Your task to perform on an android device: Clear all items from cart on costco.com. Add razer huntsman to the cart on costco.com Image 0: 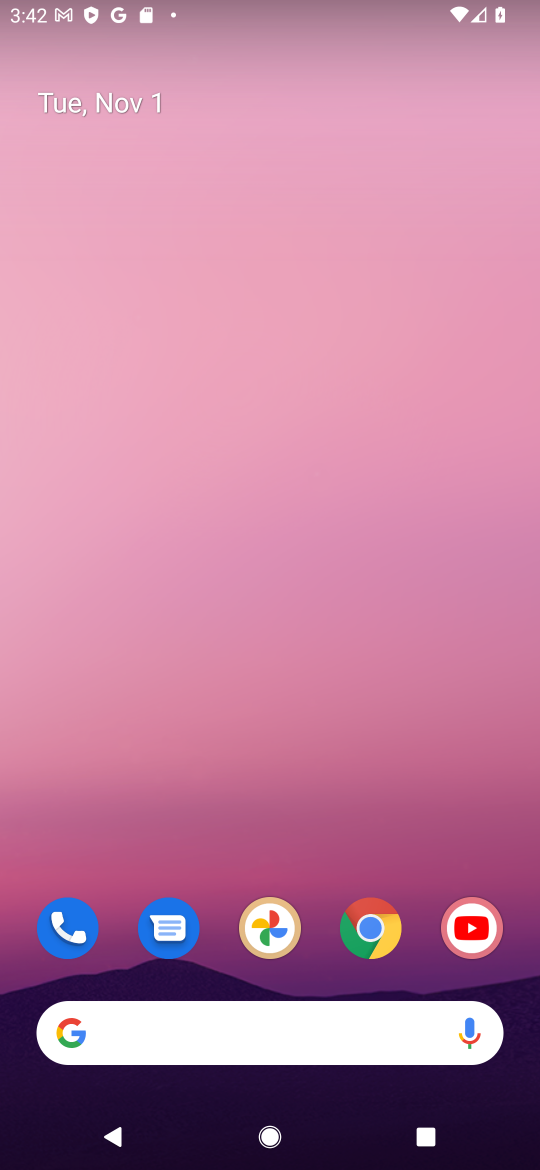
Step 0: click (381, 943)
Your task to perform on an android device: Clear all items from cart on costco.com. Add razer huntsman to the cart on costco.com Image 1: 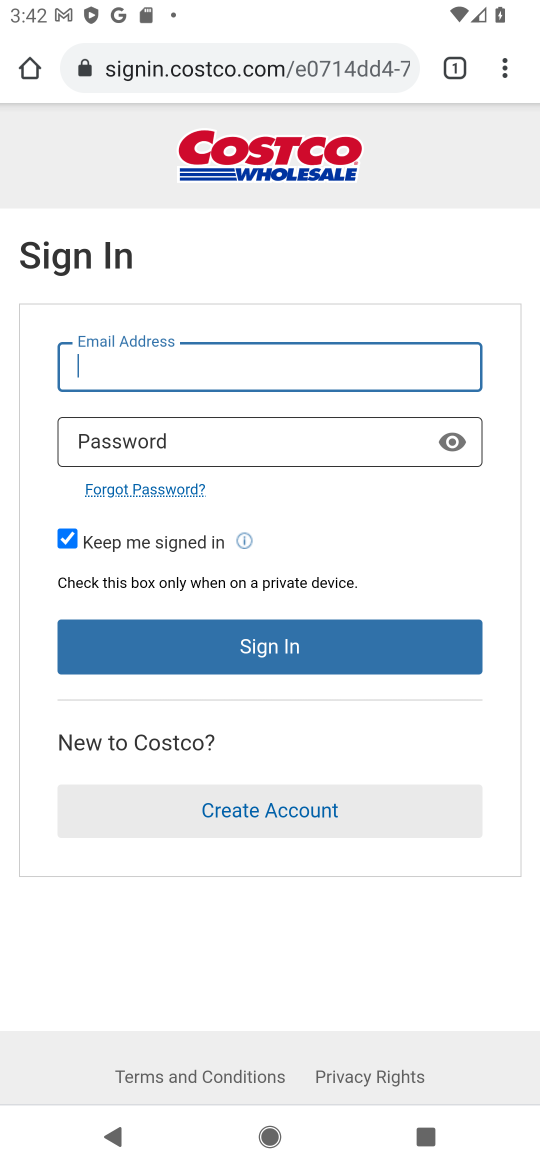
Step 1: click (255, 67)
Your task to perform on an android device: Clear all items from cart on costco.com. Add razer huntsman to the cart on costco.com Image 2: 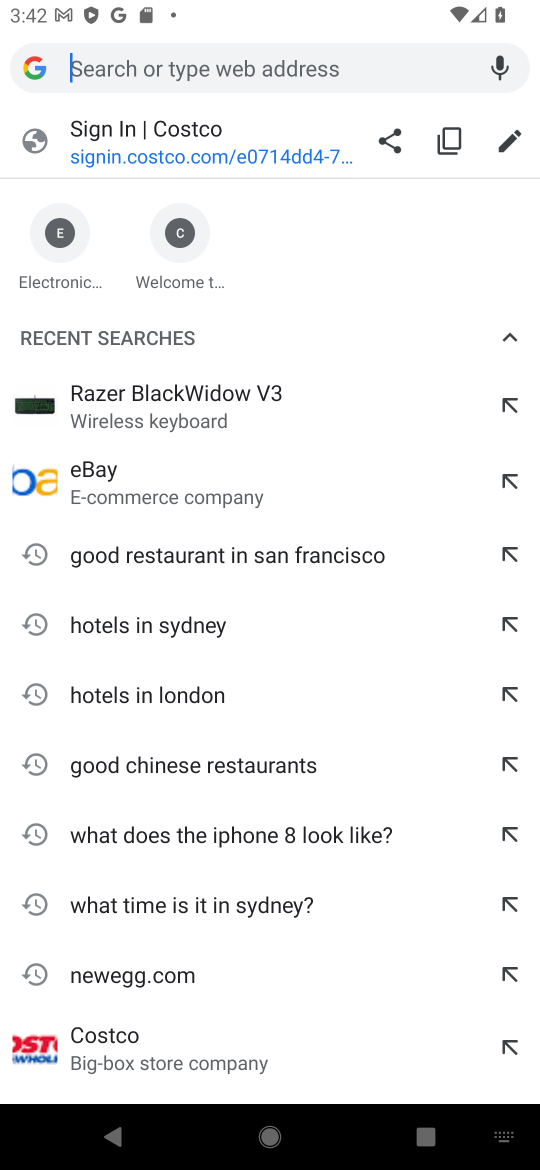
Step 2: type "costco.com"
Your task to perform on an android device: Clear all items from cart on costco.com. Add razer huntsman to the cart on costco.com Image 3: 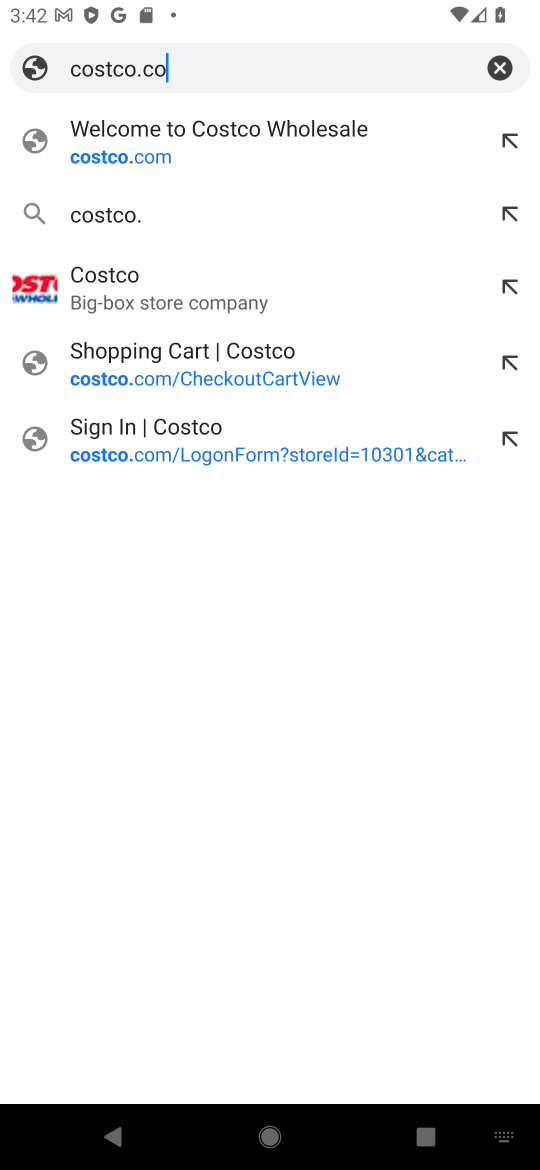
Step 3: type ""
Your task to perform on an android device: Clear all items from cart on costco.com. Add razer huntsman to the cart on costco.com Image 4: 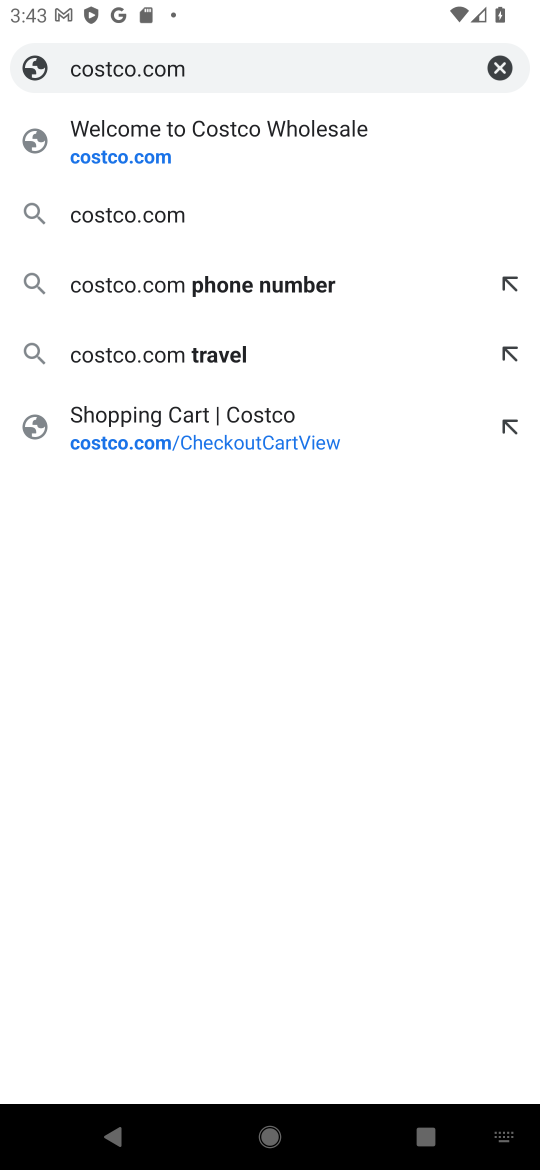
Step 4: press enter
Your task to perform on an android device: Clear all items from cart on costco.com. Add razer huntsman to the cart on costco.com Image 5: 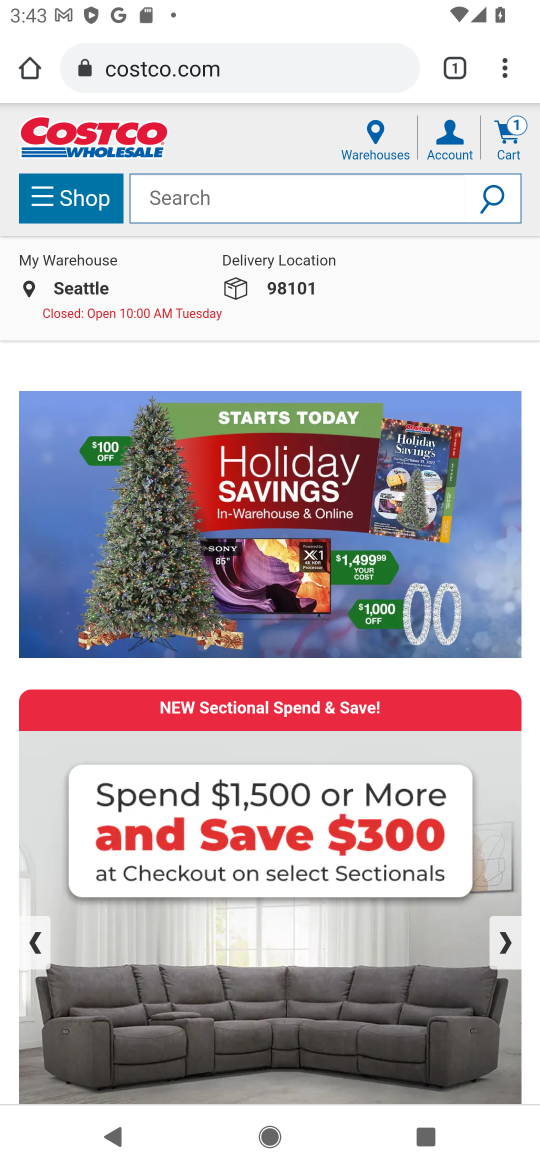
Step 5: click (499, 141)
Your task to perform on an android device: Clear all items from cart on costco.com. Add razer huntsman to the cart on costco.com Image 6: 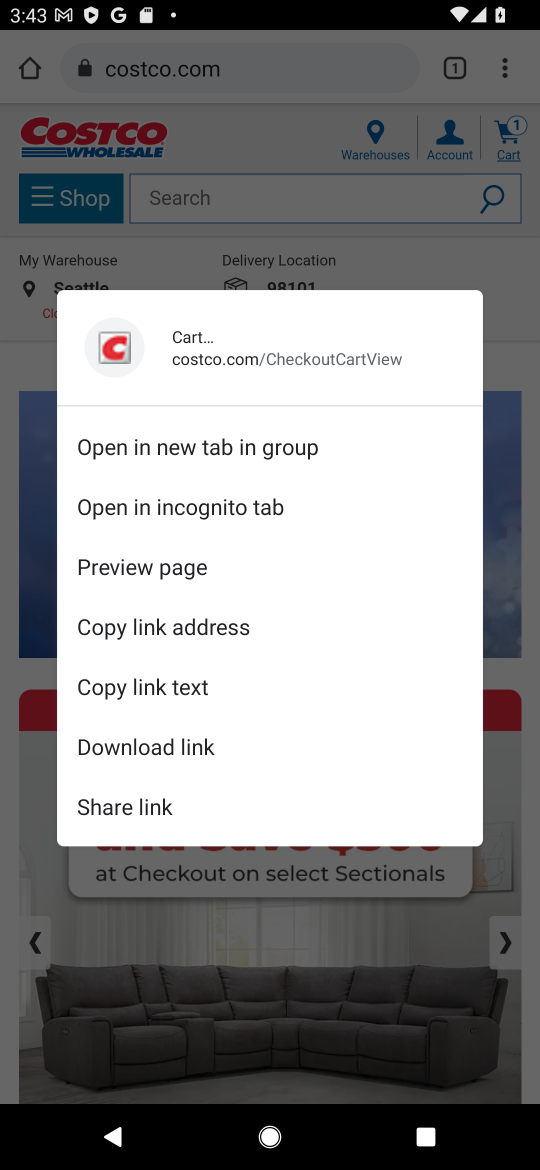
Step 6: click (512, 527)
Your task to perform on an android device: Clear all items from cart on costco.com. Add razer huntsman to the cart on costco.com Image 7: 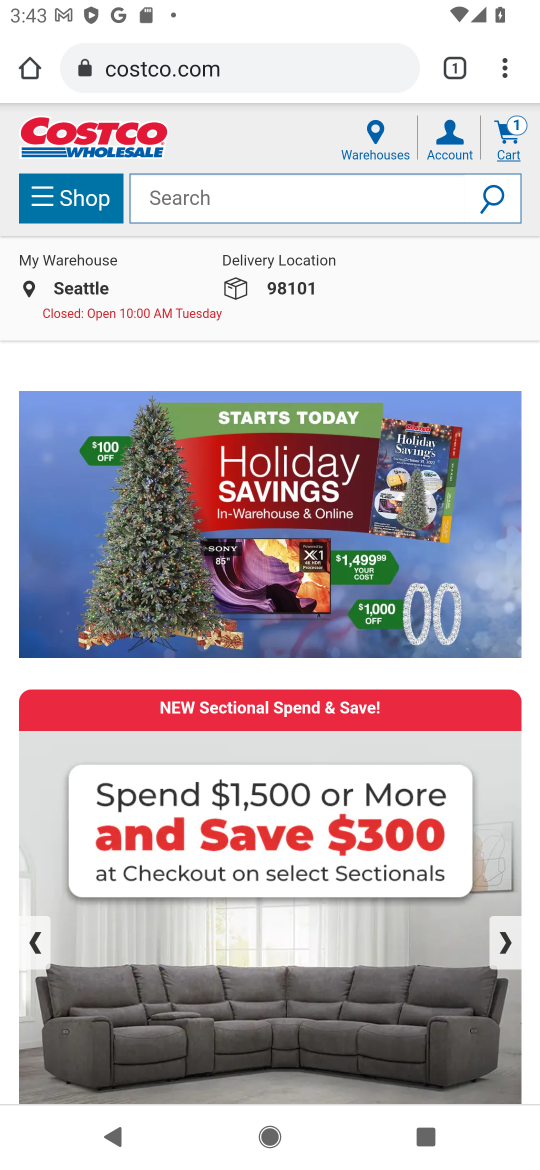
Step 7: click (506, 131)
Your task to perform on an android device: Clear all items from cart on costco.com. Add razer huntsman to the cart on costco.com Image 8: 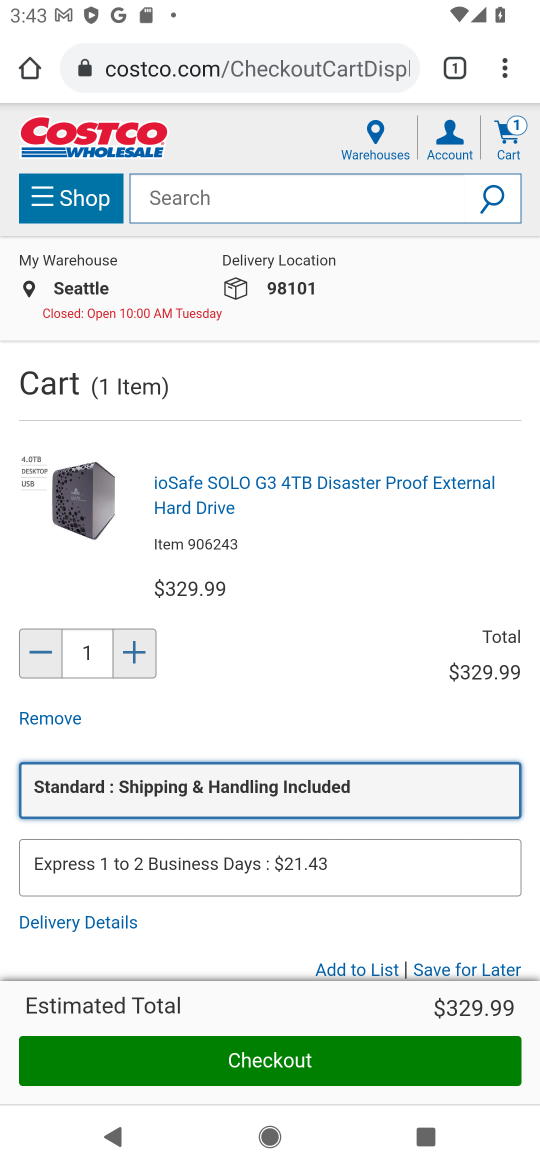
Step 8: click (61, 712)
Your task to perform on an android device: Clear all items from cart on costco.com. Add razer huntsman to the cart on costco.com Image 9: 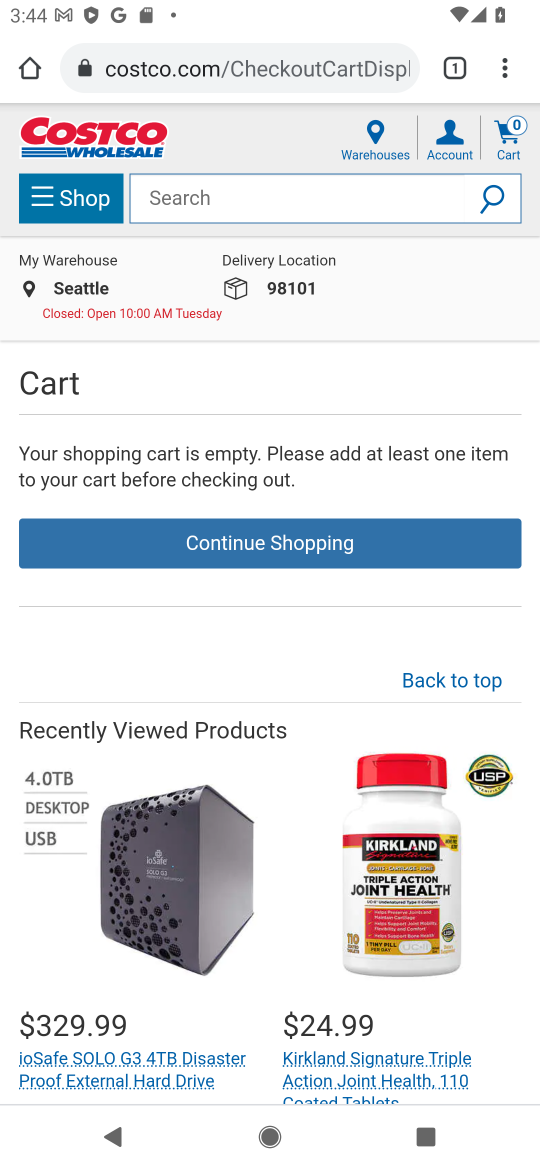
Step 9: click (310, 190)
Your task to perform on an android device: Clear all items from cart on costco.com. Add razer huntsman to the cart on costco.com Image 10: 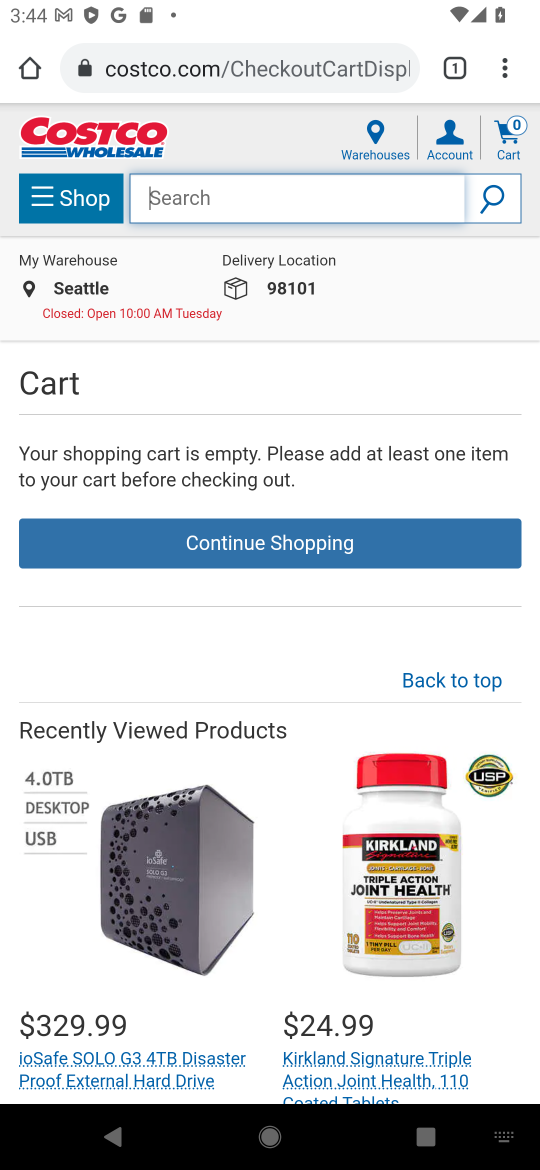
Step 10: type "razer huntsman"
Your task to perform on an android device: Clear all items from cart on costco.com. Add razer huntsman to the cart on costco.com Image 11: 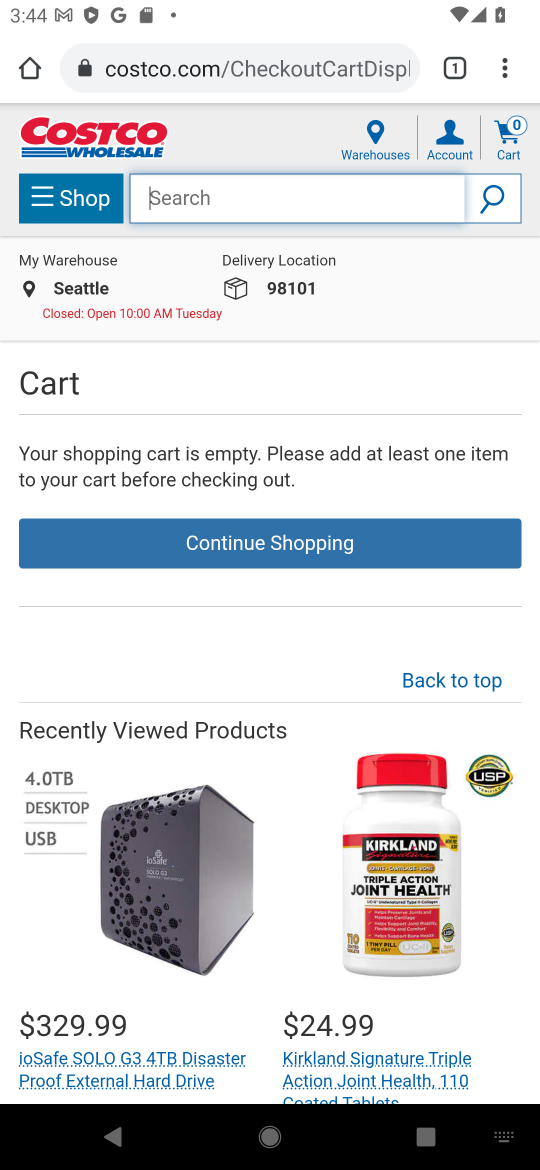
Step 11: type ""
Your task to perform on an android device: Clear all items from cart on costco.com. Add razer huntsman to the cart on costco.com Image 12: 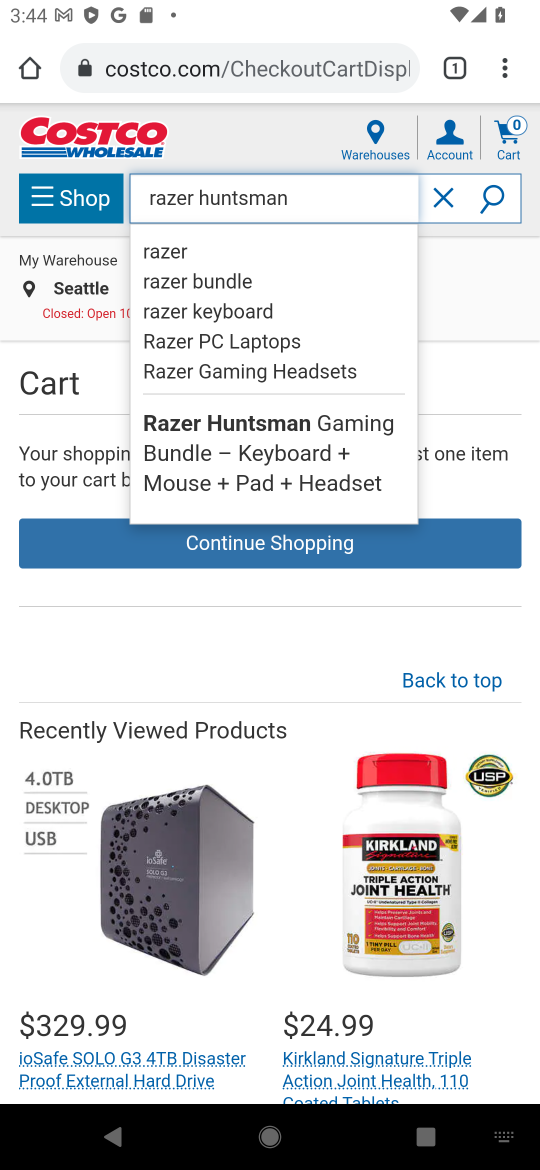
Step 12: press enter
Your task to perform on an android device: Clear all items from cart on costco.com. Add razer huntsman to the cart on costco.com Image 13: 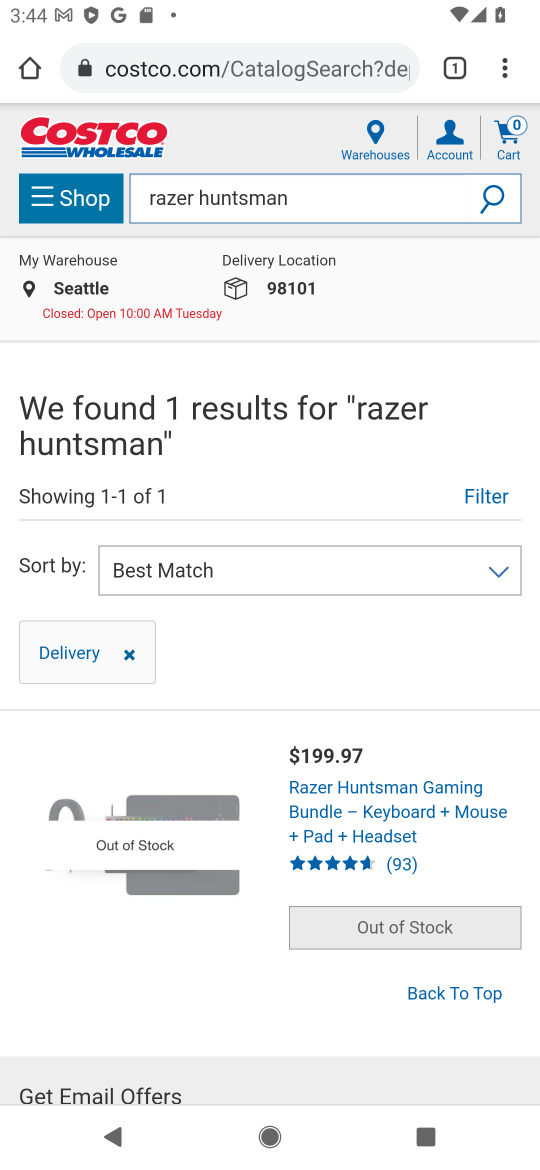
Step 13: drag from (329, 860) to (305, 356)
Your task to perform on an android device: Clear all items from cart on costco.com. Add razer huntsman to the cart on costco.com Image 14: 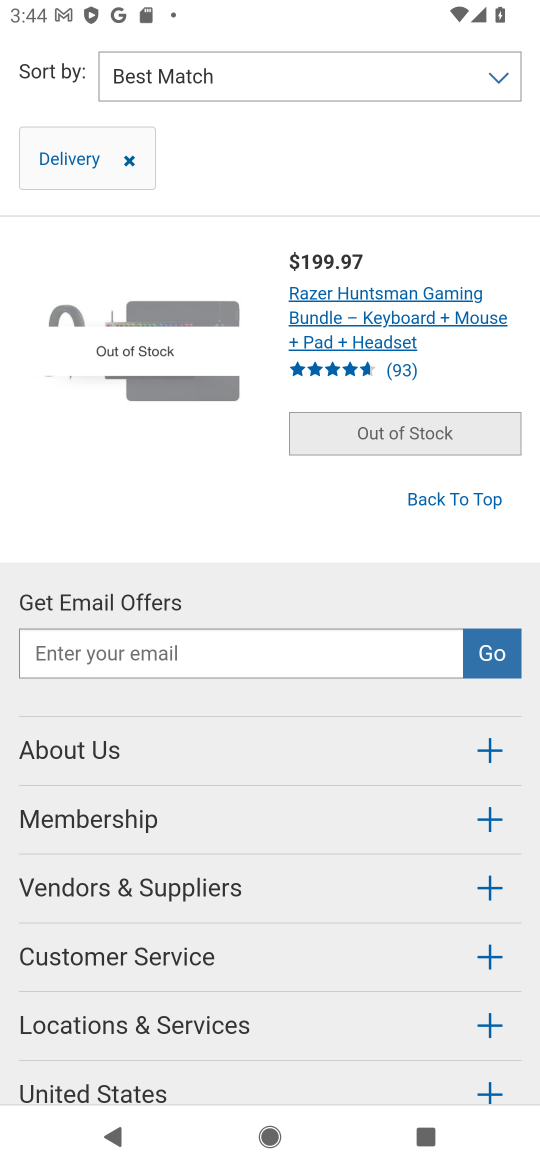
Step 14: click (421, 308)
Your task to perform on an android device: Clear all items from cart on costco.com. Add razer huntsman to the cart on costco.com Image 15: 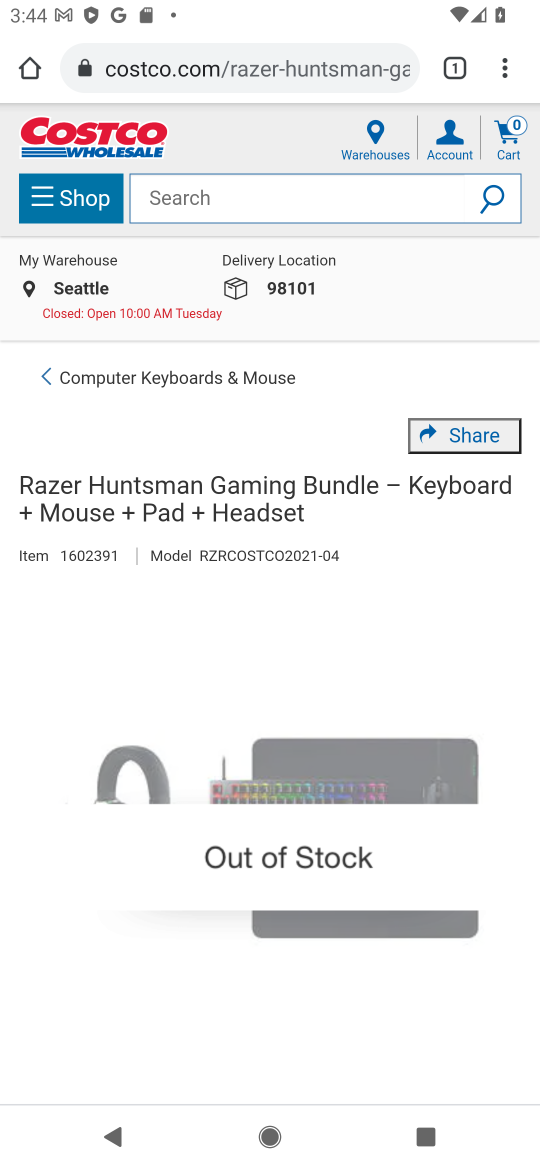
Step 15: task complete